Your task to perform on an android device: turn on wifi Image 0: 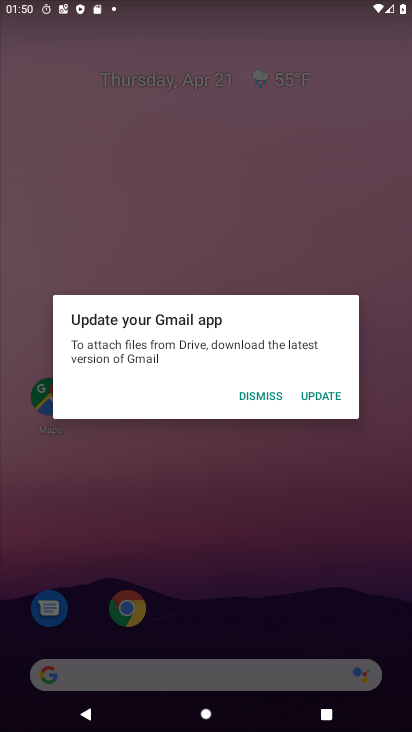
Step 0: press home button
Your task to perform on an android device: turn on wifi Image 1: 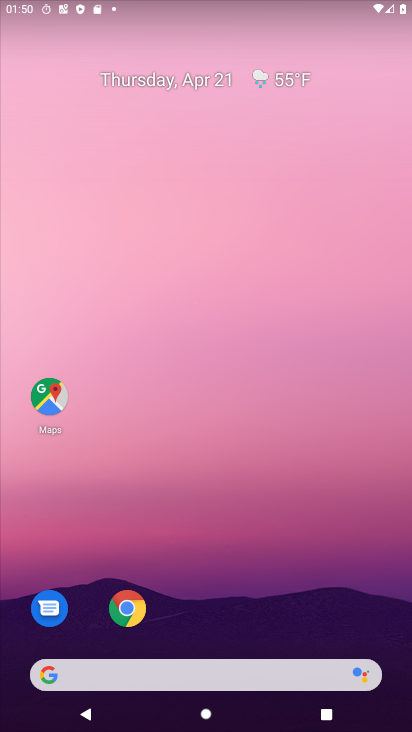
Step 1: drag from (217, 529) to (185, 92)
Your task to perform on an android device: turn on wifi Image 2: 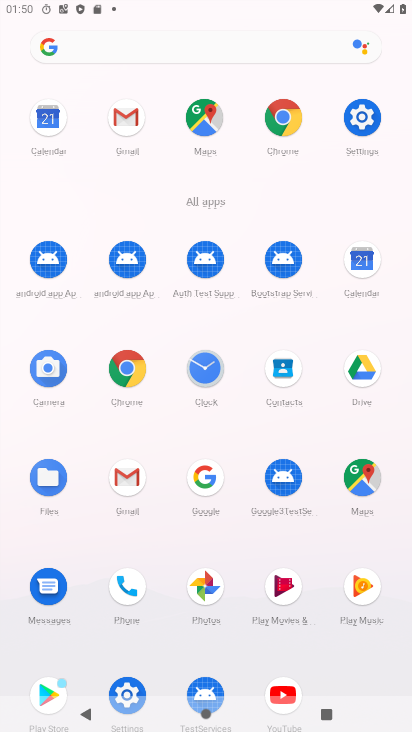
Step 2: click (367, 122)
Your task to perform on an android device: turn on wifi Image 3: 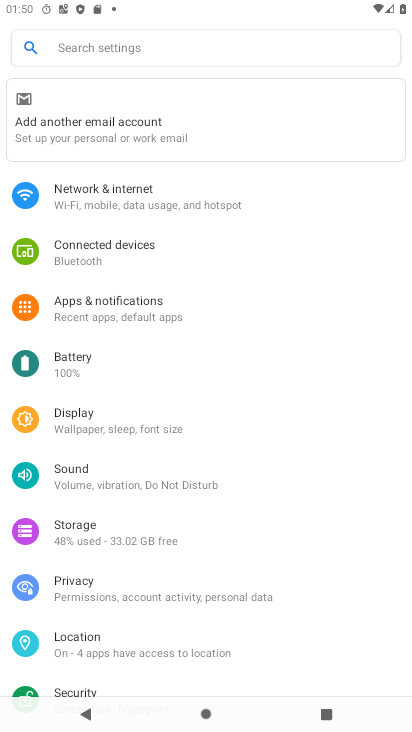
Step 3: click (68, 192)
Your task to perform on an android device: turn on wifi Image 4: 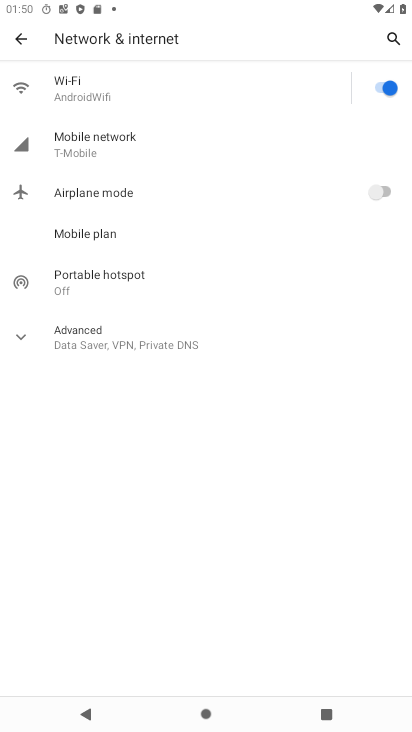
Step 4: task complete